Your task to perform on an android device: What's on my calendar today? Image 0: 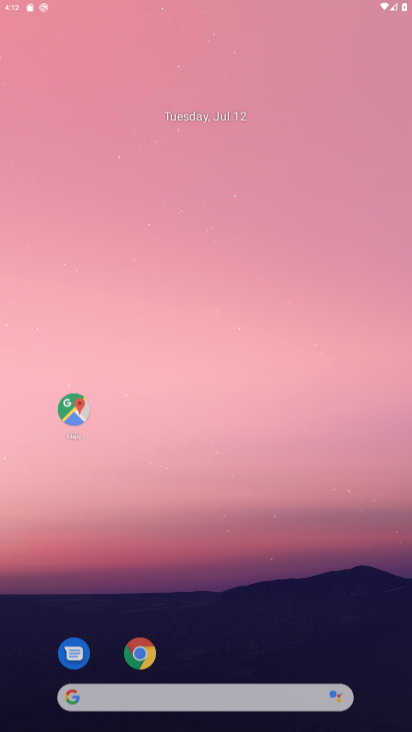
Step 0: drag from (107, 409) to (223, 40)
Your task to perform on an android device: What's on my calendar today? Image 1: 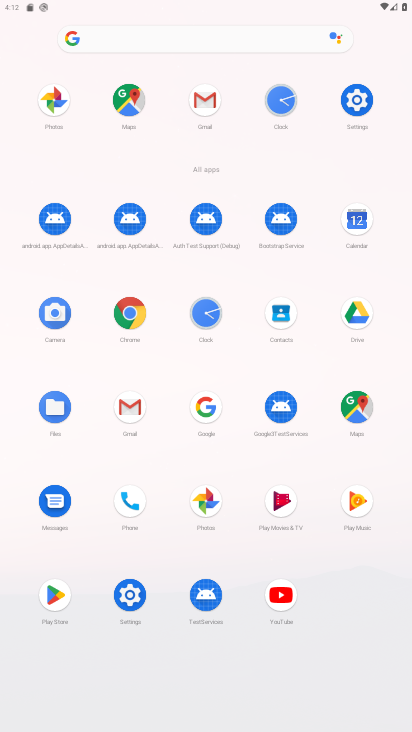
Step 1: click (347, 226)
Your task to perform on an android device: What's on my calendar today? Image 2: 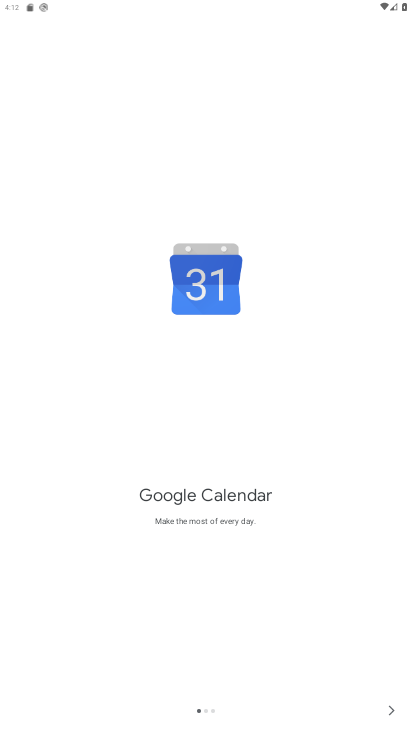
Step 2: click (389, 706)
Your task to perform on an android device: What's on my calendar today? Image 3: 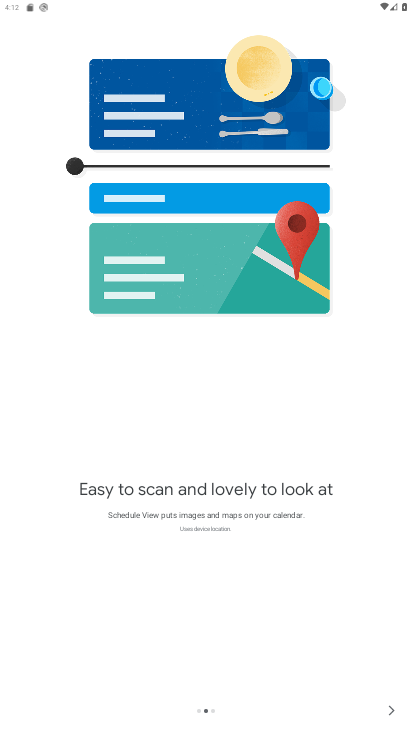
Step 3: click (382, 708)
Your task to perform on an android device: What's on my calendar today? Image 4: 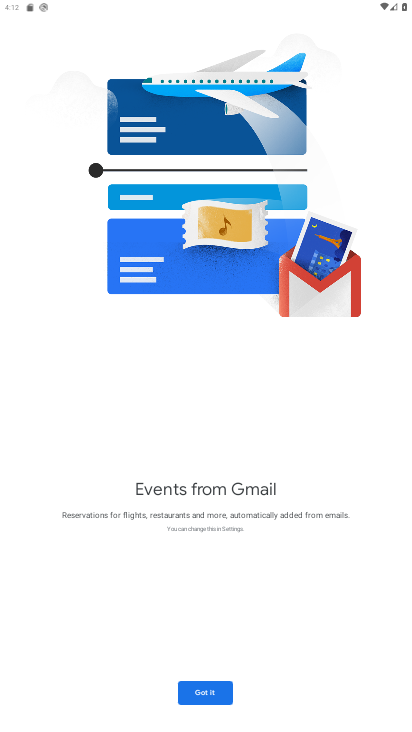
Step 4: click (188, 683)
Your task to perform on an android device: What's on my calendar today? Image 5: 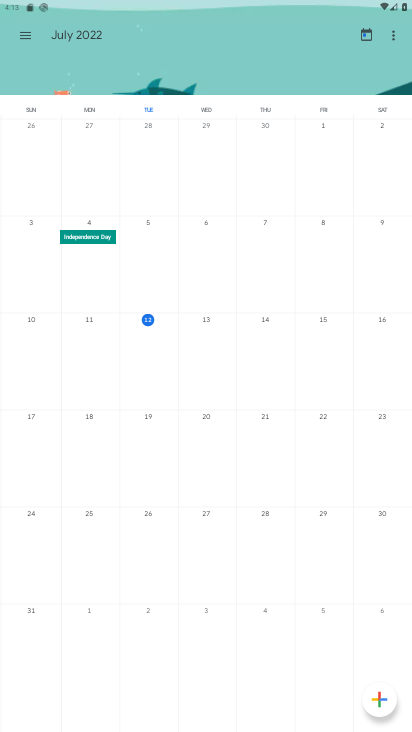
Step 5: task complete